Your task to perform on an android device: turn on location history Image 0: 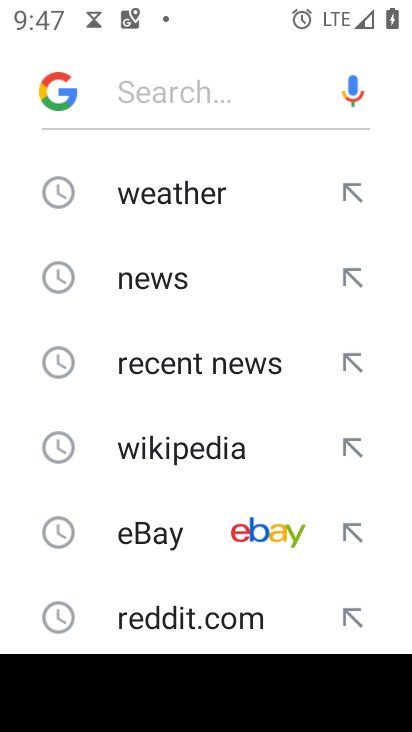
Step 0: press home button
Your task to perform on an android device: turn on location history Image 1: 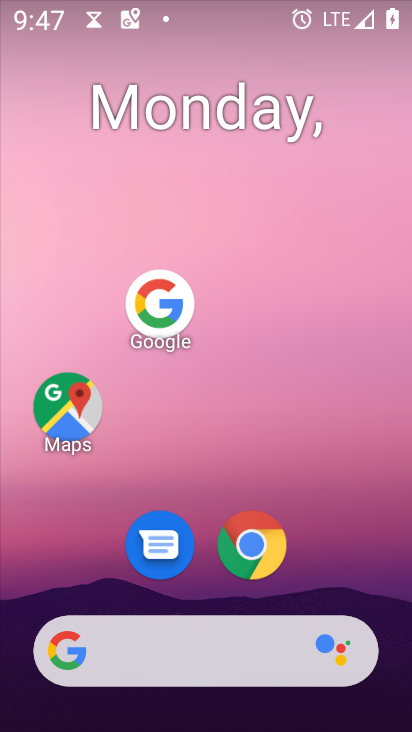
Step 1: drag from (210, 661) to (330, 111)
Your task to perform on an android device: turn on location history Image 2: 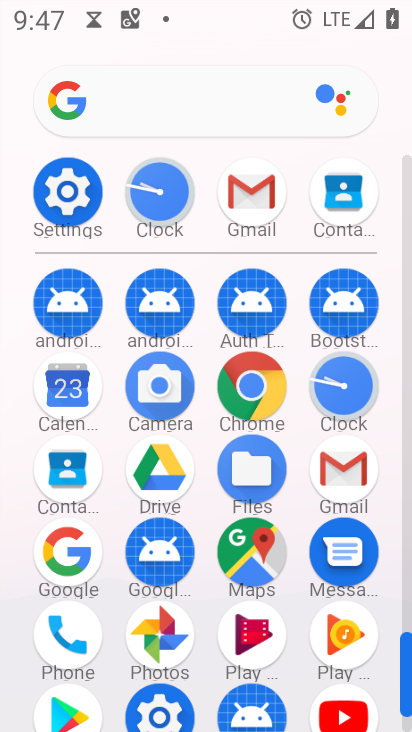
Step 2: click (250, 567)
Your task to perform on an android device: turn on location history Image 3: 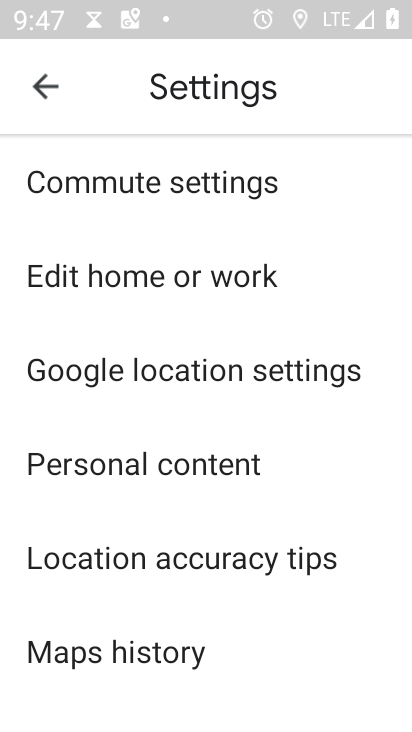
Step 3: click (48, 91)
Your task to perform on an android device: turn on location history Image 4: 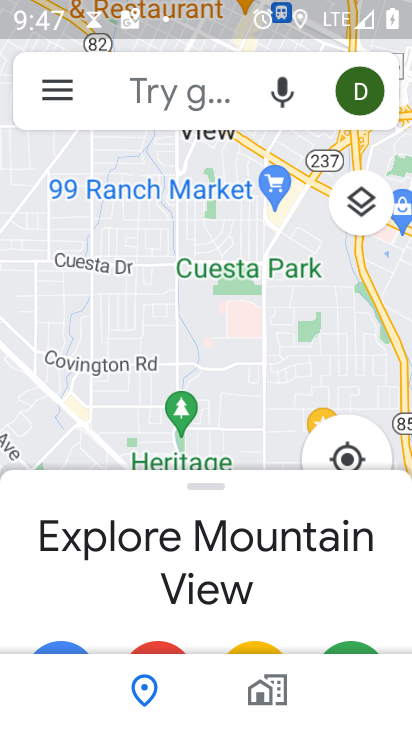
Step 4: click (56, 83)
Your task to perform on an android device: turn on location history Image 5: 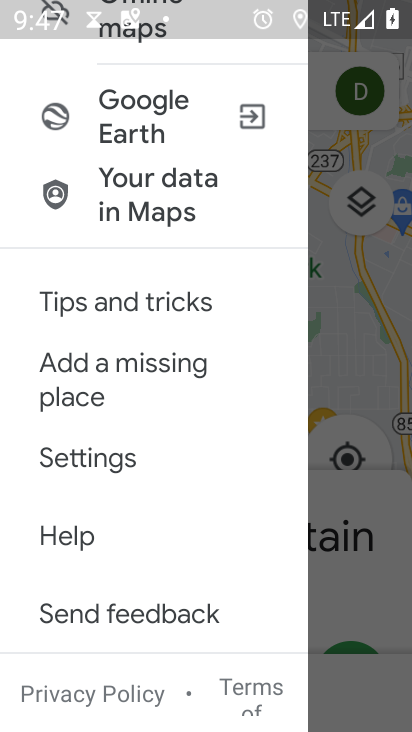
Step 5: drag from (183, 201) to (161, 601)
Your task to perform on an android device: turn on location history Image 6: 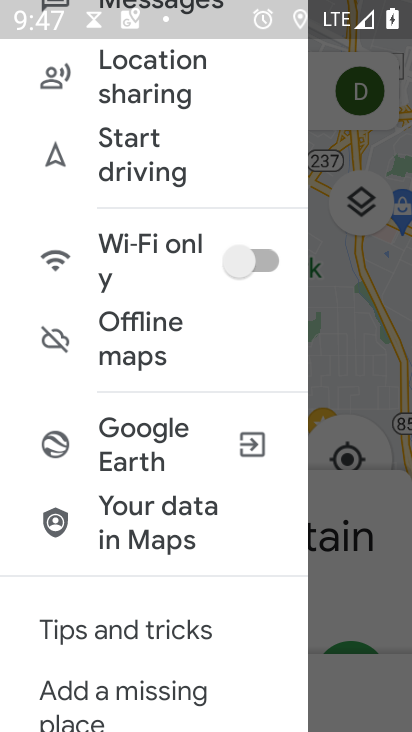
Step 6: drag from (213, 57) to (151, 598)
Your task to perform on an android device: turn on location history Image 7: 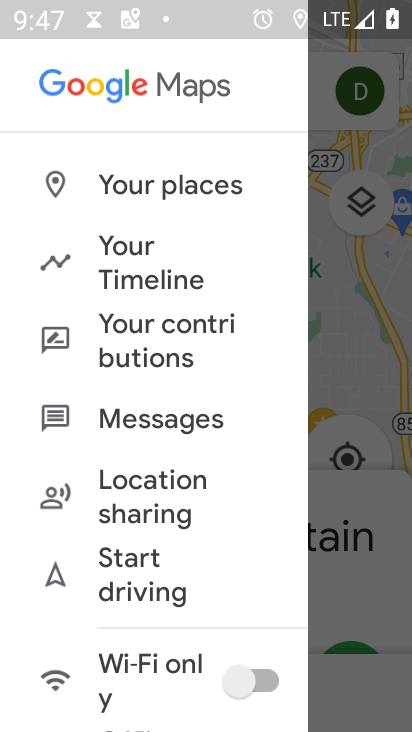
Step 7: click (137, 246)
Your task to perform on an android device: turn on location history Image 8: 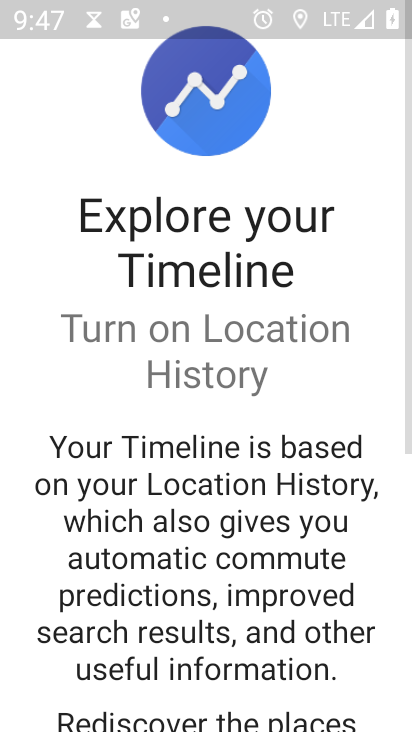
Step 8: drag from (198, 629) to (409, 89)
Your task to perform on an android device: turn on location history Image 9: 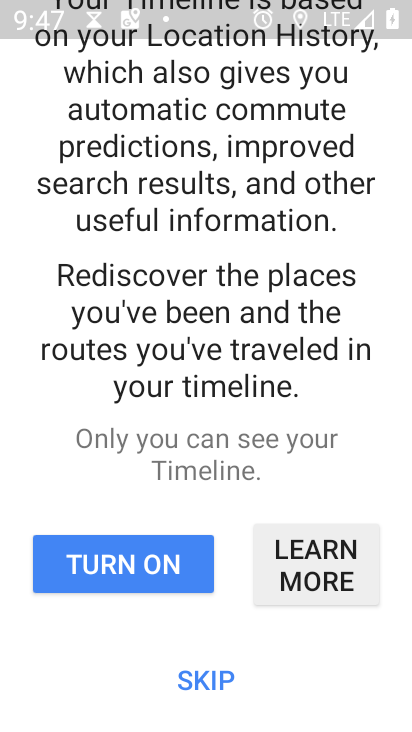
Step 9: click (211, 684)
Your task to perform on an android device: turn on location history Image 10: 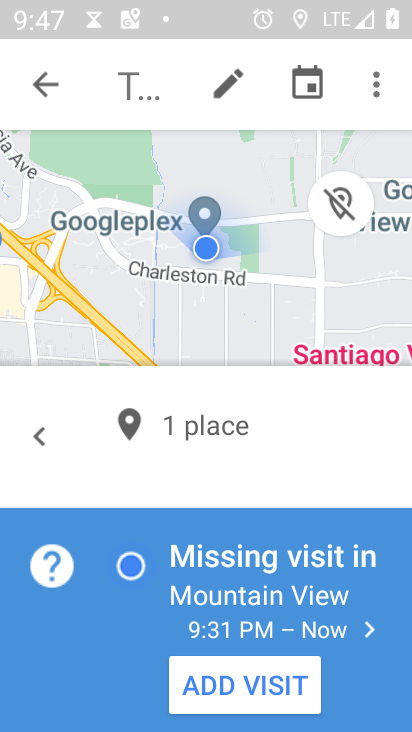
Step 10: click (378, 84)
Your task to perform on an android device: turn on location history Image 11: 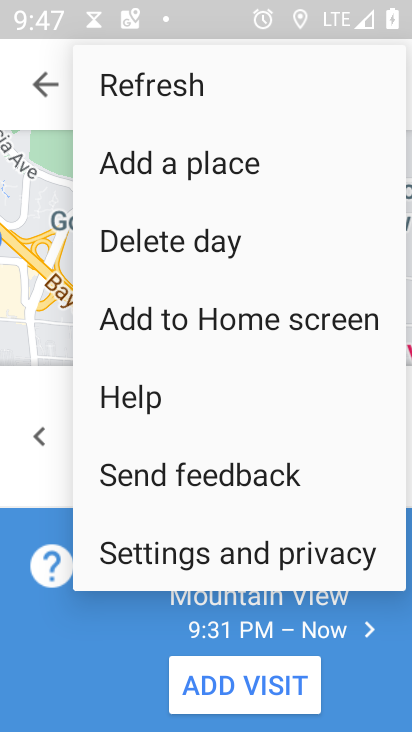
Step 11: click (278, 552)
Your task to perform on an android device: turn on location history Image 12: 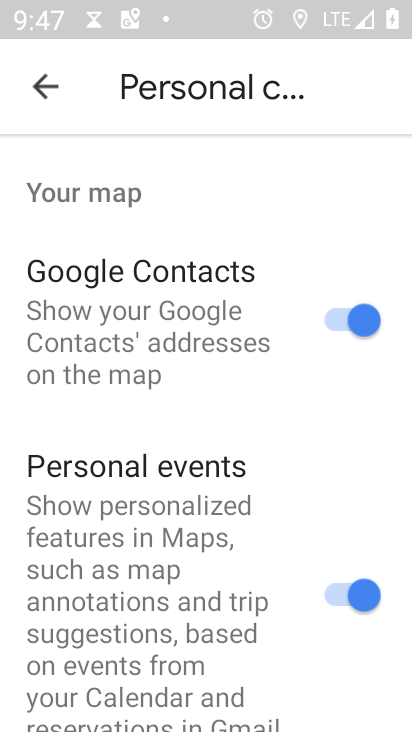
Step 12: drag from (175, 656) to (316, 73)
Your task to perform on an android device: turn on location history Image 13: 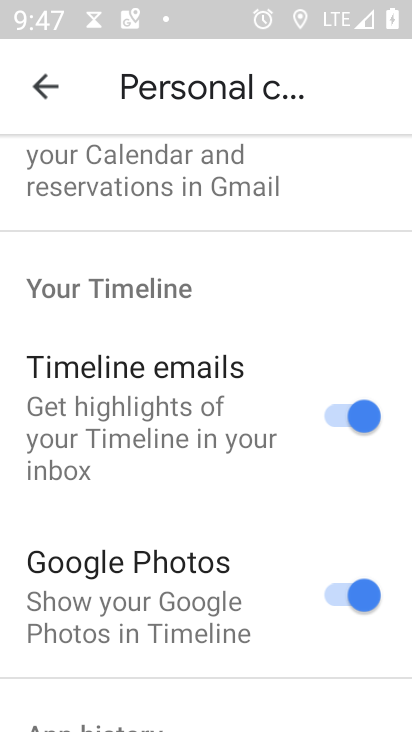
Step 13: drag from (221, 673) to (365, 148)
Your task to perform on an android device: turn on location history Image 14: 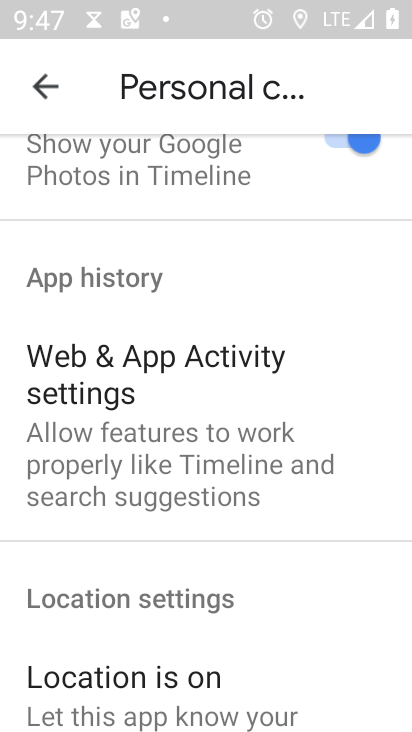
Step 14: drag from (191, 655) to (264, 219)
Your task to perform on an android device: turn on location history Image 15: 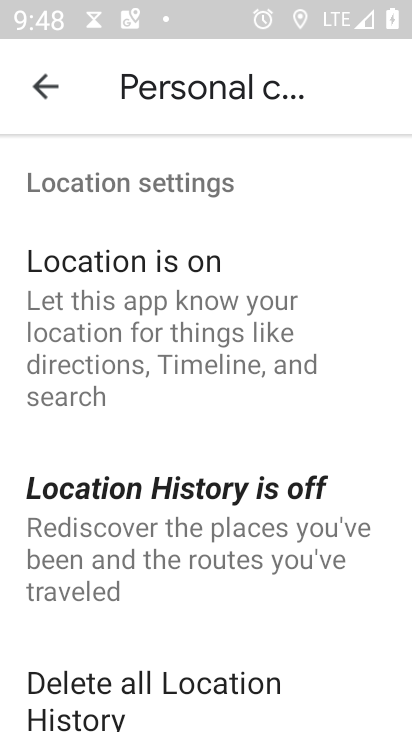
Step 15: click (183, 496)
Your task to perform on an android device: turn on location history Image 16: 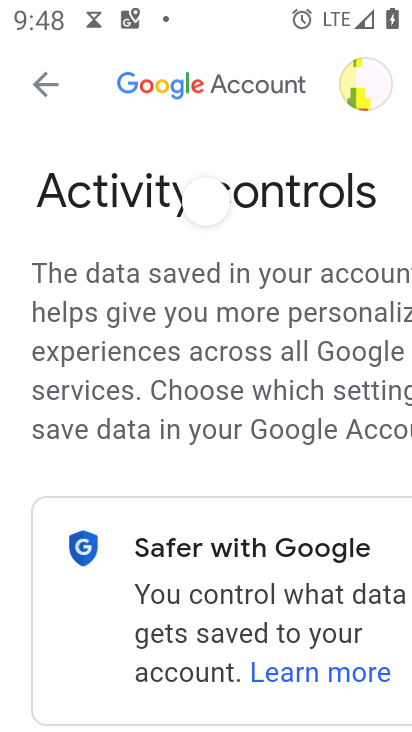
Step 16: drag from (183, 657) to (354, 31)
Your task to perform on an android device: turn on location history Image 17: 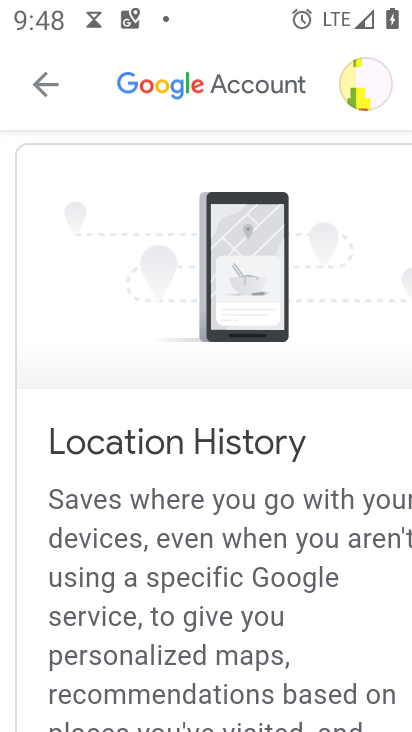
Step 17: drag from (184, 647) to (281, 257)
Your task to perform on an android device: turn on location history Image 18: 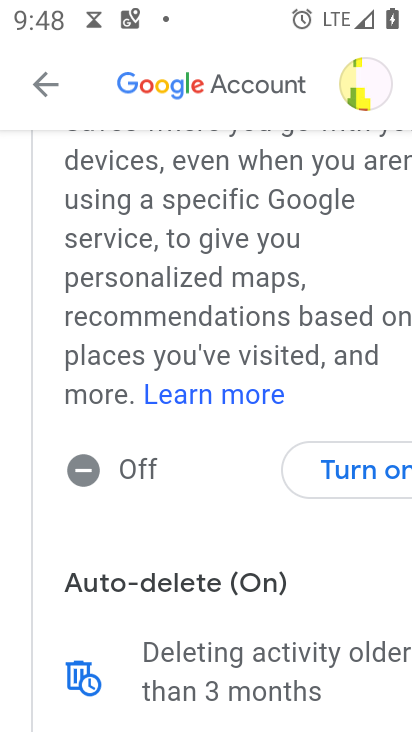
Step 18: click (365, 478)
Your task to perform on an android device: turn on location history Image 19: 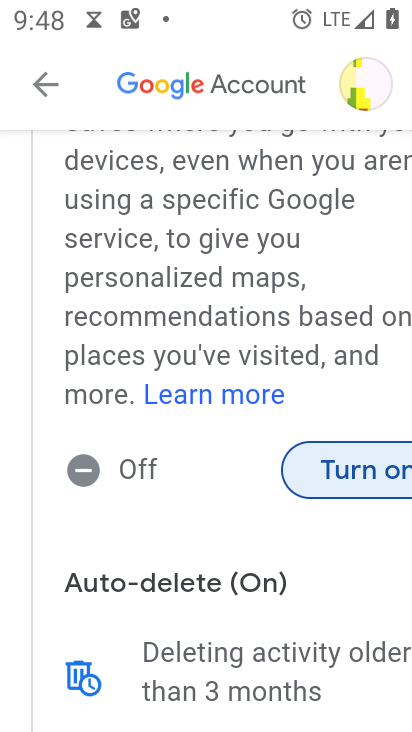
Step 19: click (366, 470)
Your task to perform on an android device: turn on location history Image 20: 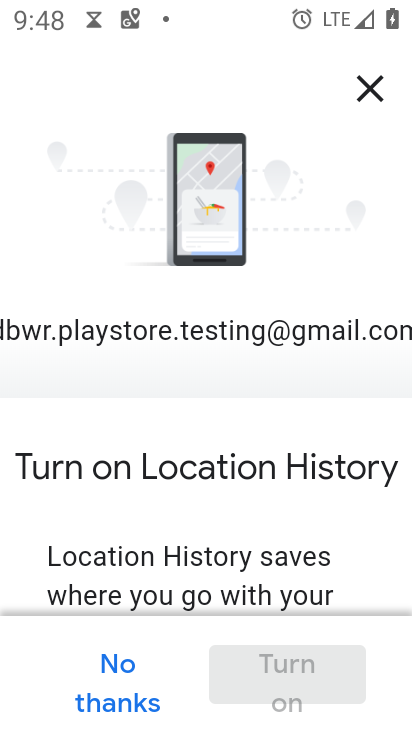
Step 20: drag from (248, 588) to (337, 70)
Your task to perform on an android device: turn on location history Image 21: 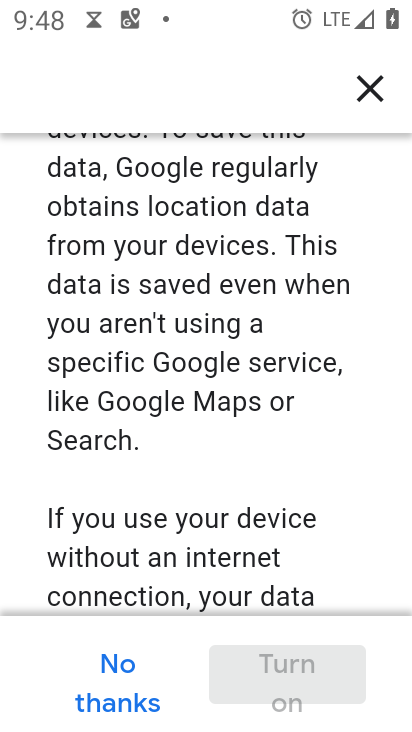
Step 21: drag from (256, 585) to (340, 77)
Your task to perform on an android device: turn on location history Image 22: 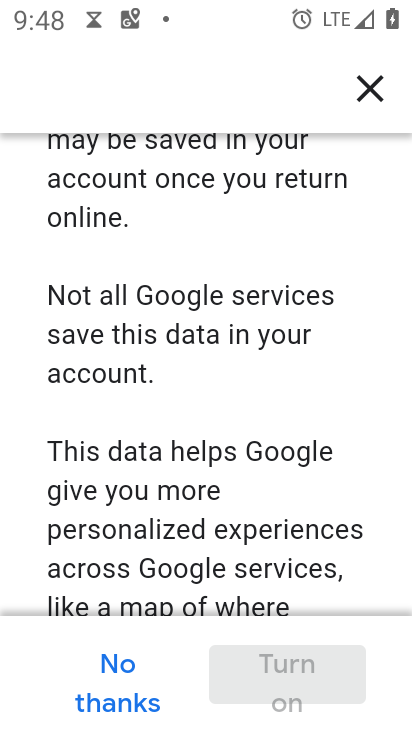
Step 22: drag from (235, 546) to (338, 53)
Your task to perform on an android device: turn on location history Image 23: 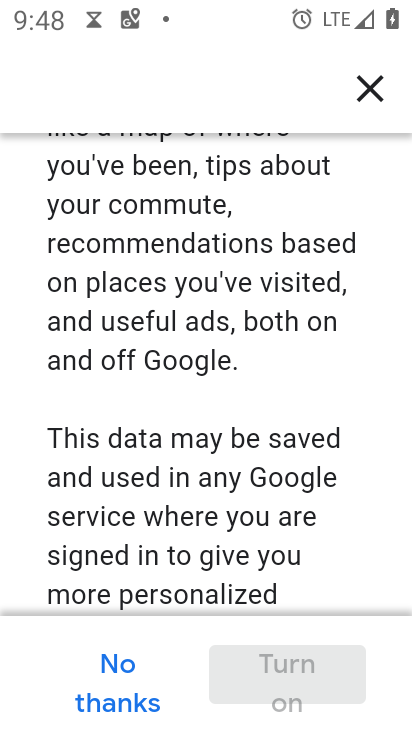
Step 23: drag from (252, 589) to (348, 105)
Your task to perform on an android device: turn on location history Image 24: 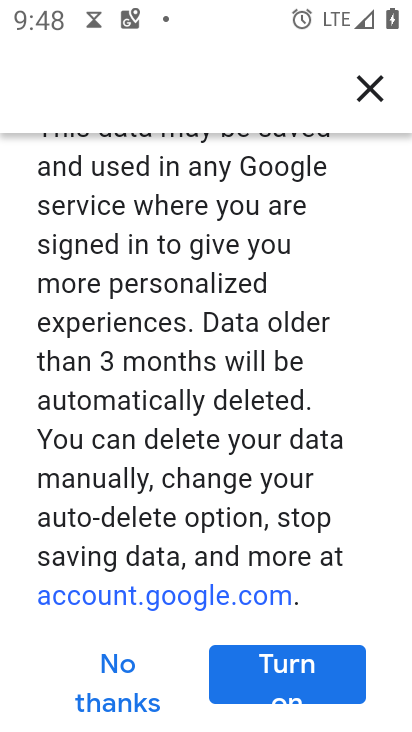
Step 24: drag from (238, 553) to (307, 247)
Your task to perform on an android device: turn on location history Image 25: 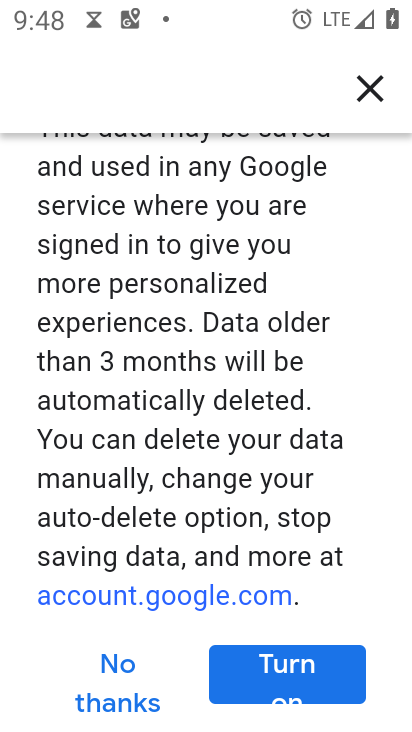
Step 25: click (298, 684)
Your task to perform on an android device: turn on location history Image 26: 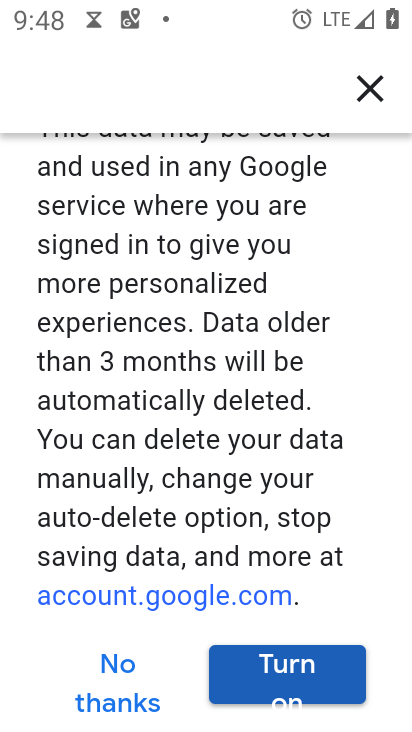
Step 26: click (290, 680)
Your task to perform on an android device: turn on location history Image 27: 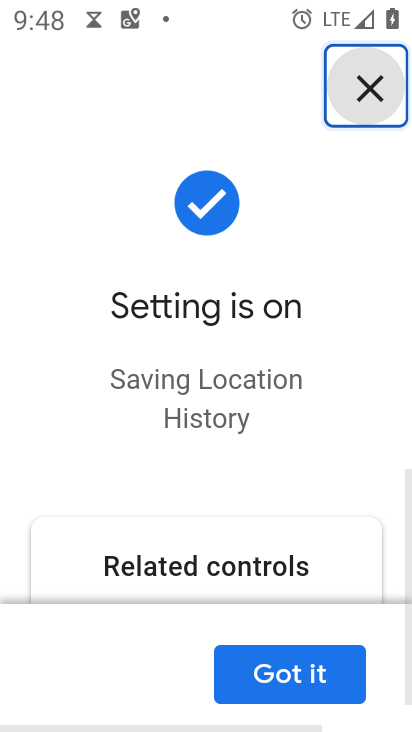
Step 27: click (290, 680)
Your task to perform on an android device: turn on location history Image 28: 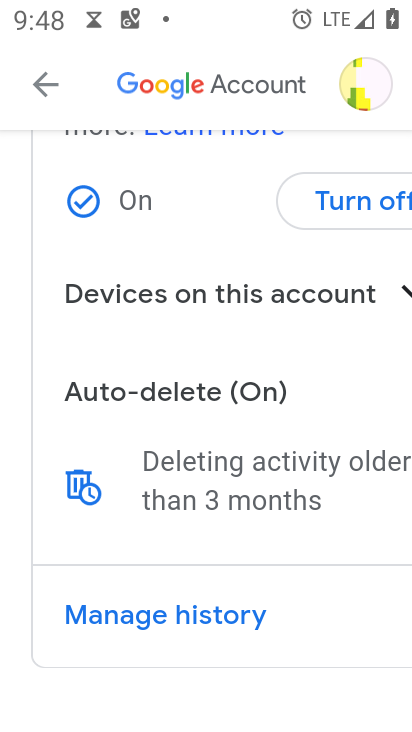
Step 28: task complete